Your task to perform on an android device: Open the map Image 0: 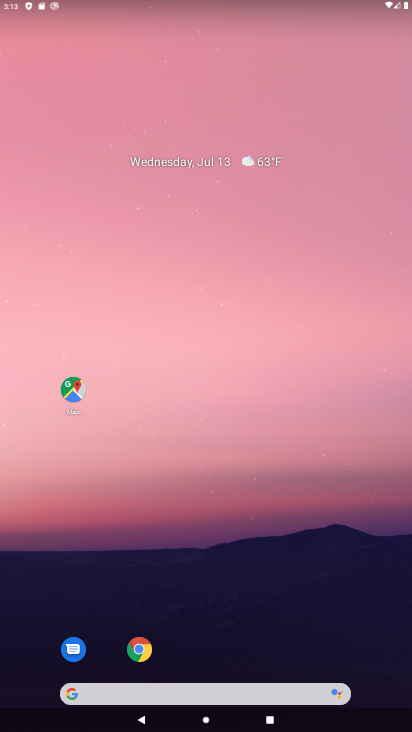
Step 0: click (69, 390)
Your task to perform on an android device: Open the map Image 1: 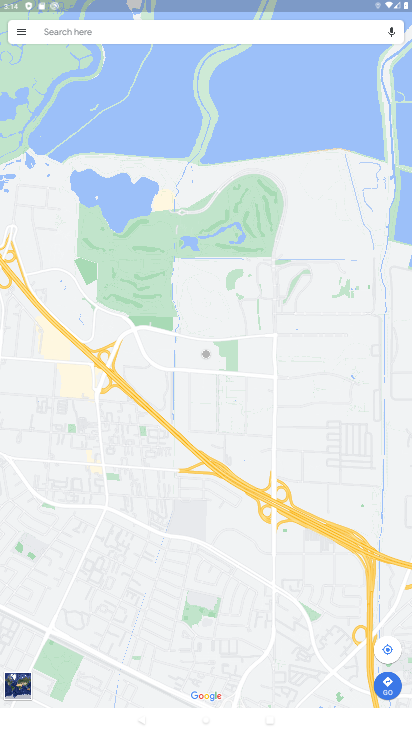
Step 1: task complete